Your task to perform on an android device: allow cookies in the chrome app Image 0: 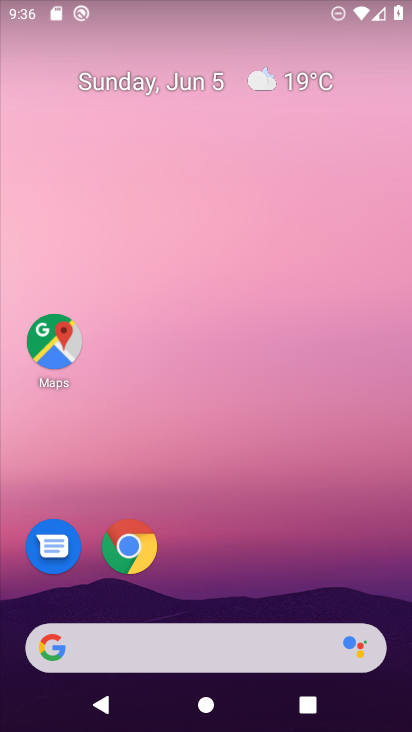
Step 0: click (121, 530)
Your task to perform on an android device: allow cookies in the chrome app Image 1: 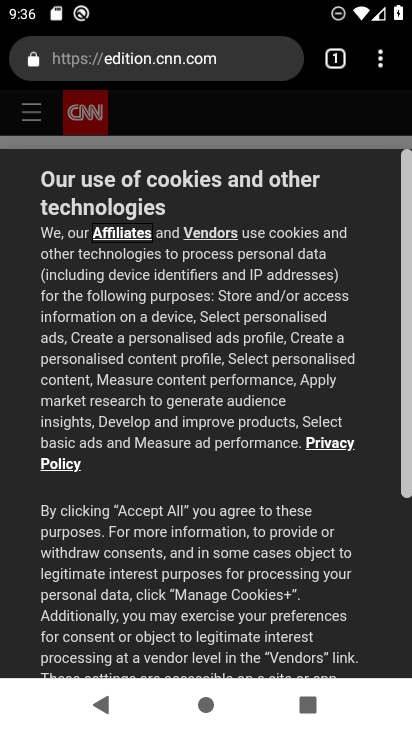
Step 1: click (378, 53)
Your task to perform on an android device: allow cookies in the chrome app Image 2: 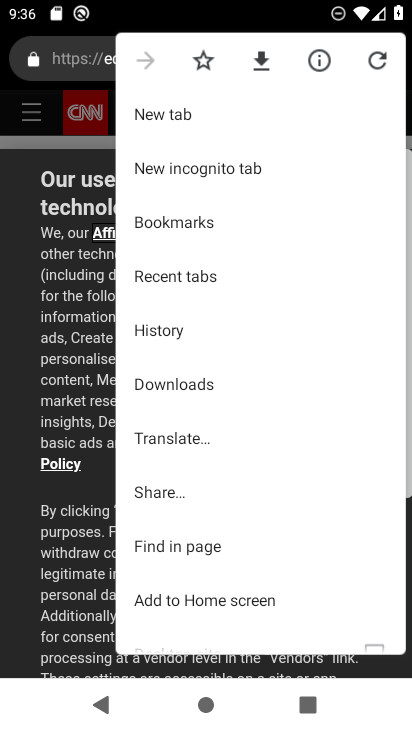
Step 2: drag from (204, 576) to (217, 105)
Your task to perform on an android device: allow cookies in the chrome app Image 3: 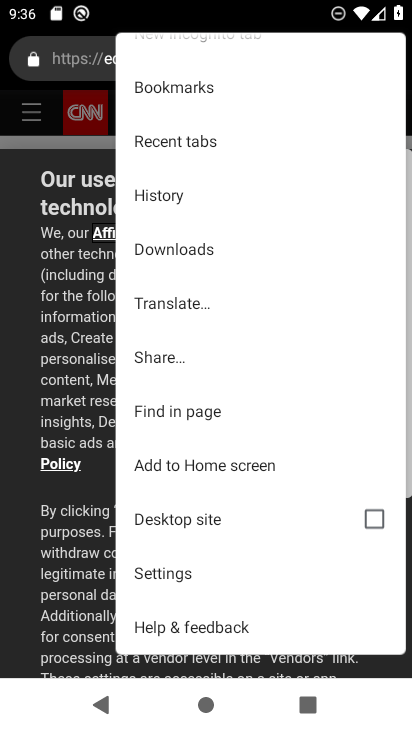
Step 3: click (181, 562)
Your task to perform on an android device: allow cookies in the chrome app Image 4: 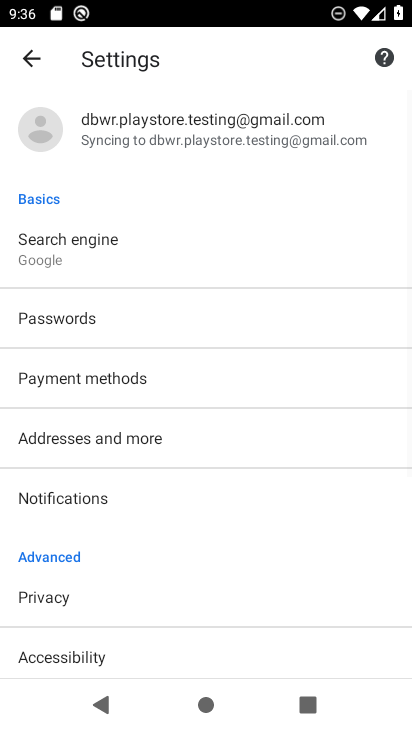
Step 4: drag from (181, 562) to (164, 3)
Your task to perform on an android device: allow cookies in the chrome app Image 5: 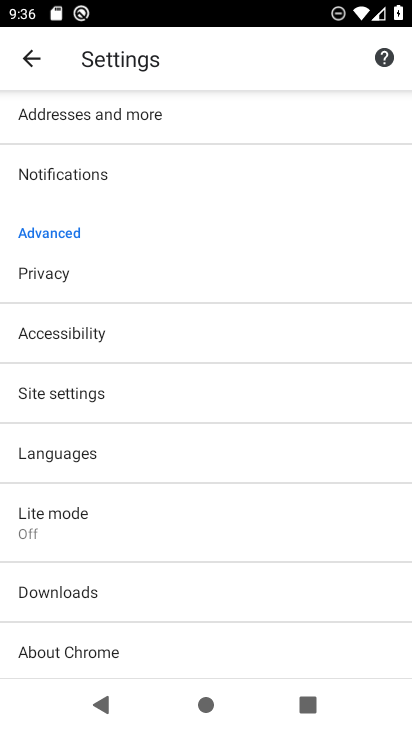
Step 5: click (118, 404)
Your task to perform on an android device: allow cookies in the chrome app Image 6: 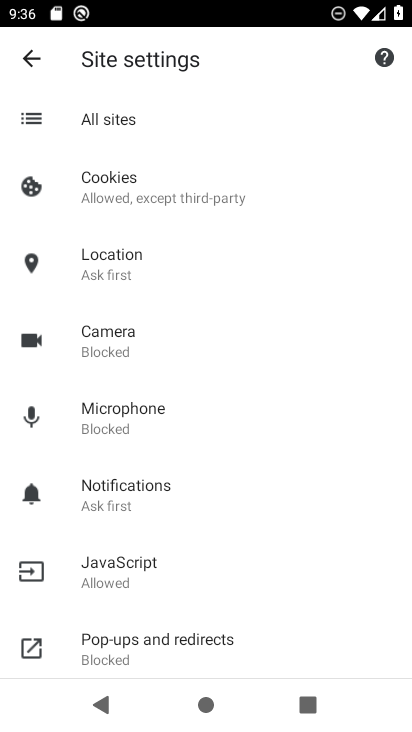
Step 6: click (128, 196)
Your task to perform on an android device: allow cookies in the chrome app Image 7: 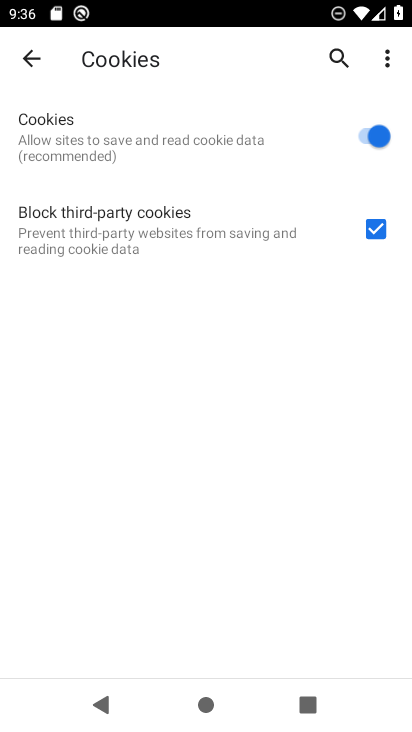
Step 7: task complete